Your task to perform on an android device: Open Youtube and go to the subscriptions tab Image 0: 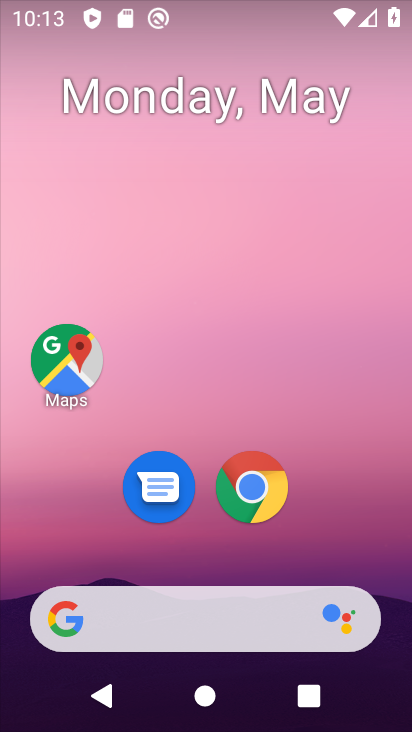
Step 0: drag from (382, 507) to (374, 228)
Your task to perform on an android device: Open Youtube and go to the subscriptions tab Image 1: 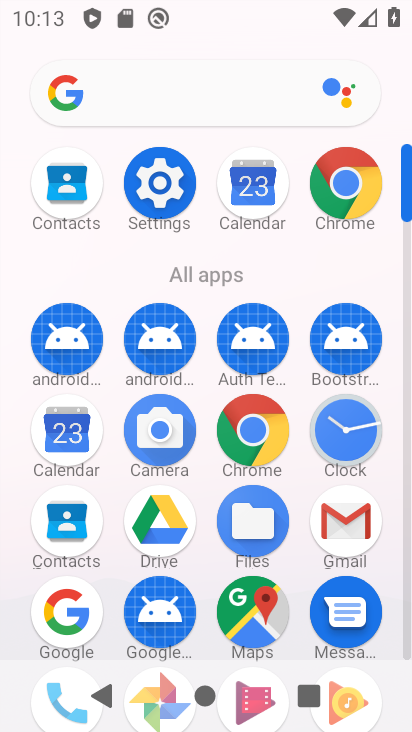
Step 1: drag from (388, 643) to (388, 539)
Your task to perform on an android device: Open Youtube and go to the subscriptions tab Image 2: 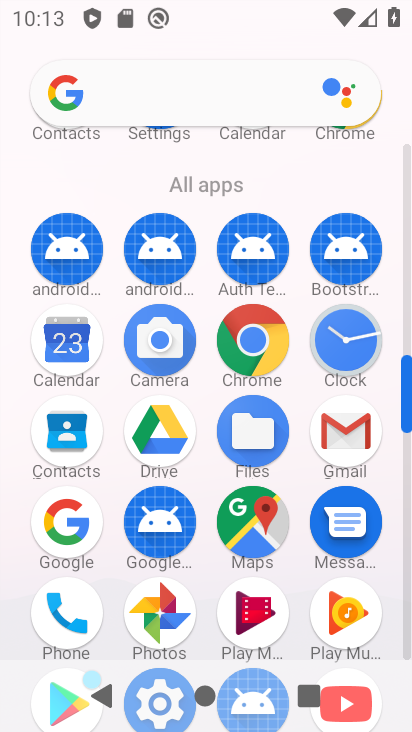
Step 2: drag from (393, 642) to (398, 507)
Your task to perform on an android device: Open Youtube and go to the subscriptions tab Image 3: 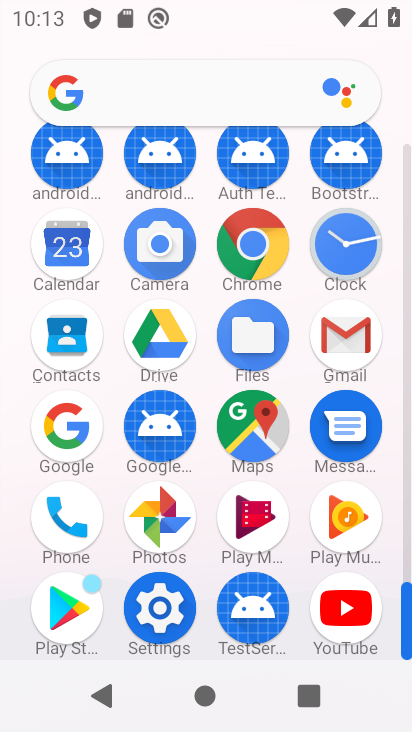
Step 3: click (363, 619)
Your task to perform on an android device: Open Youtube and go to the subscriptions tab Image 4: 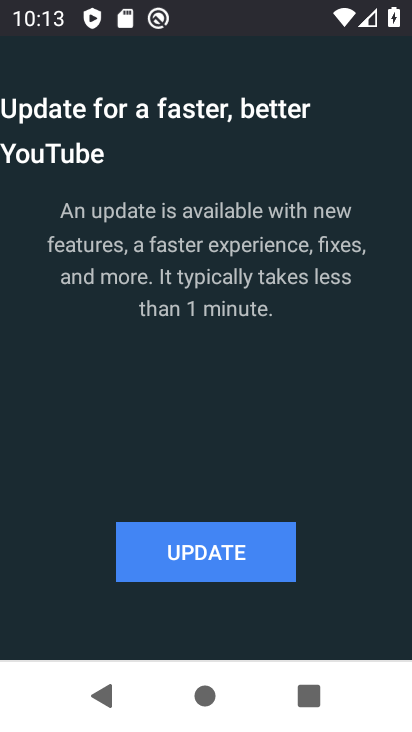
Step 4: click (263, 553)
Your task to perform on an android device: Open Youtube and go to the subscriptions tab Image 5: 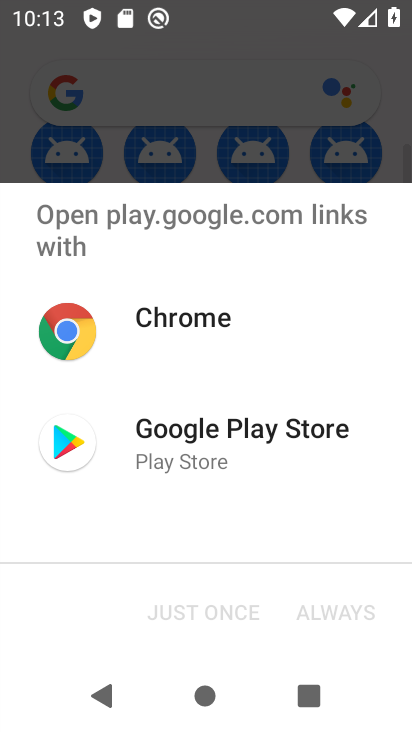
Step 5: click (196, 449)
Your task to perform on an android device: Open Youtube and go to the subscriptions tab Image 6: 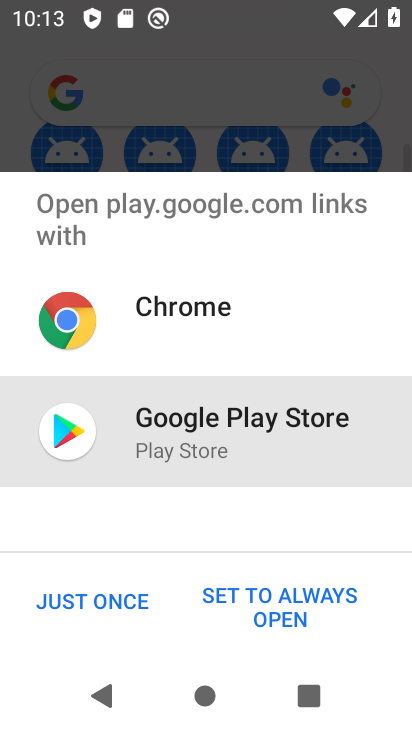
Step 6: click (112, 608)
Your task to perform on an android device: Open Youtube and go to the subscriptions tab Image 7: 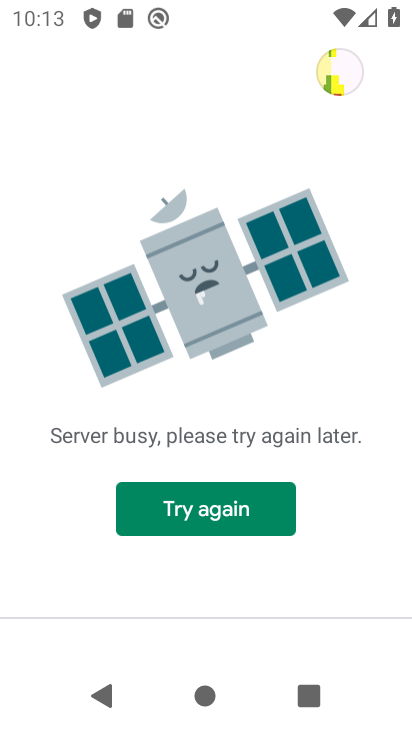
Step 7: click (264, 528)
Your task to perform on an android device: Open Youtube and go to the subscriptions tab Image 8: 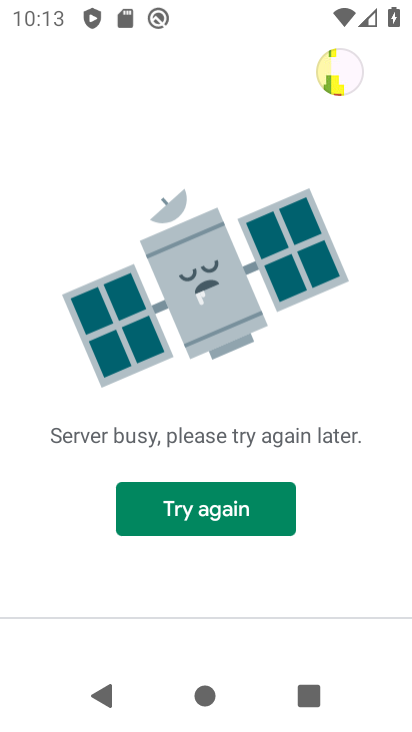
Step 8: click (264, 528)
Your task to perform on an android device: Open Youtube and go to the subscriptions tab Image 9: 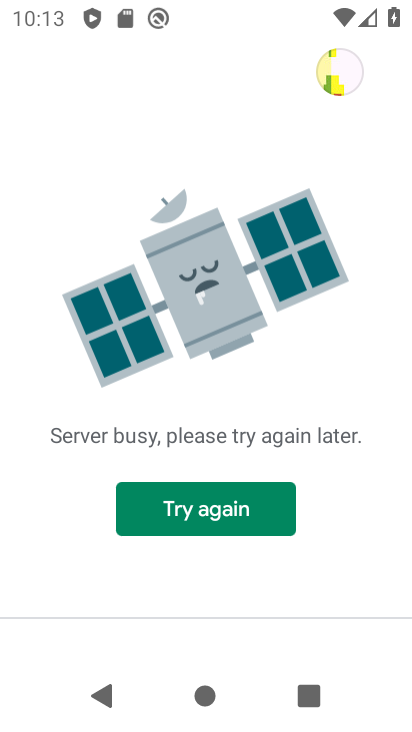
Step 9: click (264, 528)
Your task to perform on an android device: Open Youtube and go to the subscriptions tab Image 10: 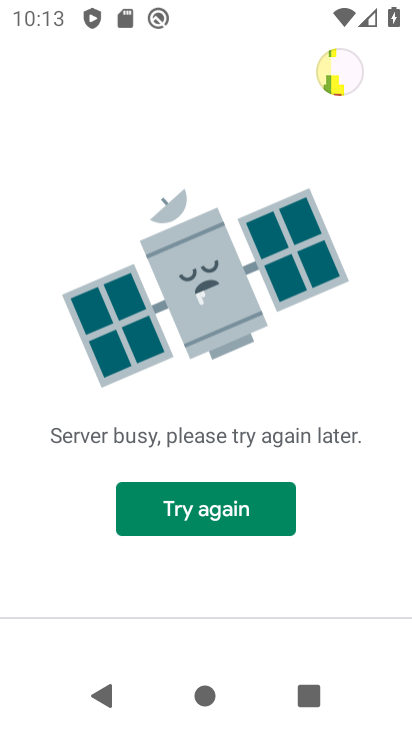
Step 10: click (265, 528)
Your task to perform on an android device: Open Youtube and go to the subscriptions tab Image 11: 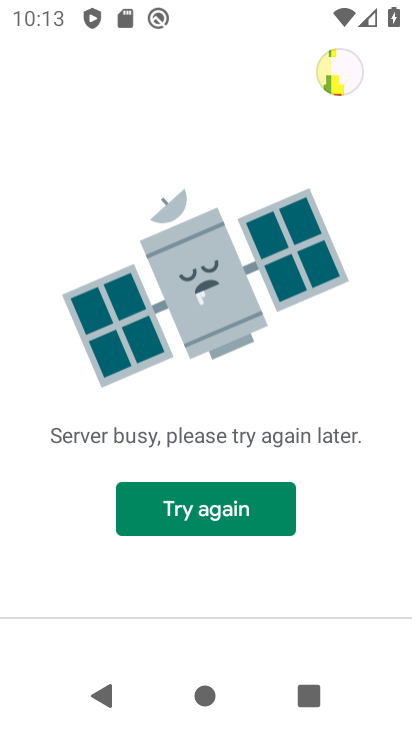
Step 11: task complete